Your task to perform on an android device: Show me popular videos on Youtube Image 0: 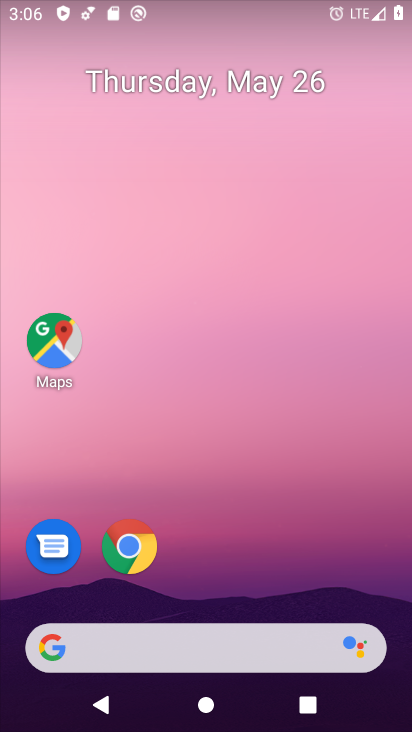
Step 0: drag from (244, 604) to (257, 46)
Your task to perform on an android device: Show me popular videos on Youtube Image 1: 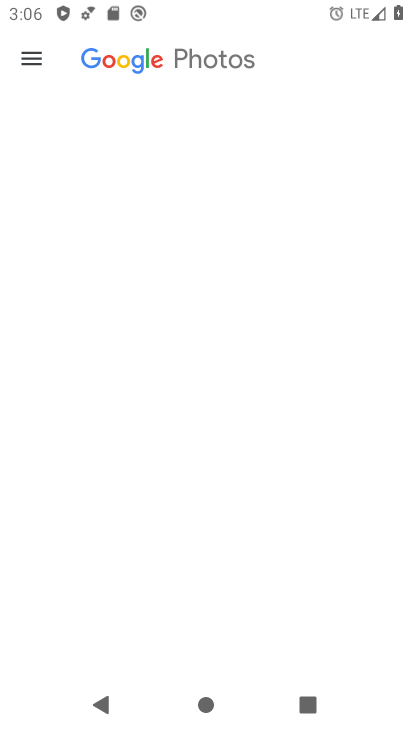
Step 1: click (358, 641)
Your task to perform on an android device: Show me popular videos on Youtube Image 2: 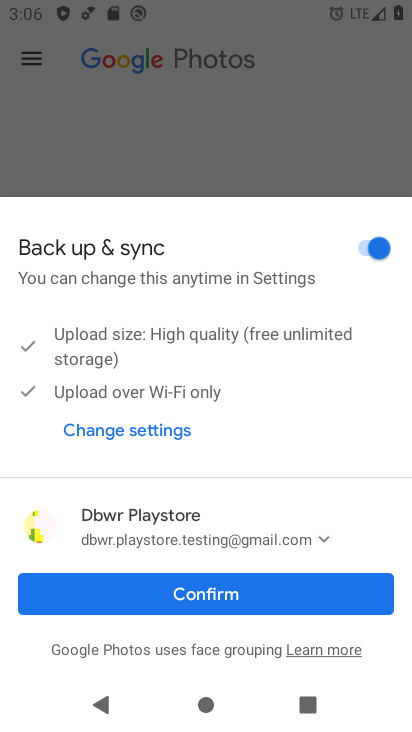
Step 2: press back button
Your task to perform on an android device: Show me popular videos on Youtube Image 3: 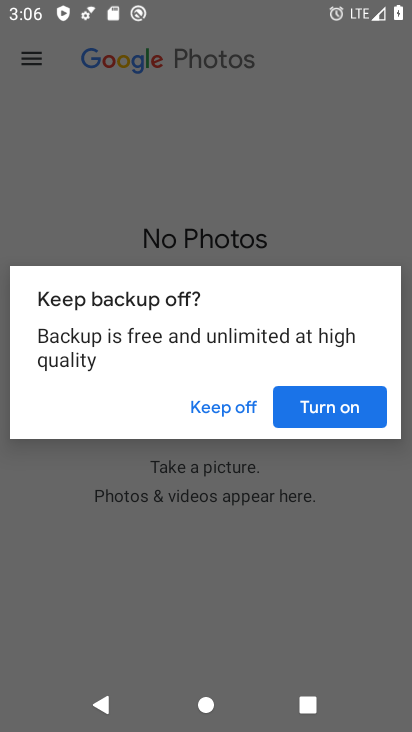
Step 3: press home button
Your task to perform on an android device: Show me popular videos on Youtube Image 4: 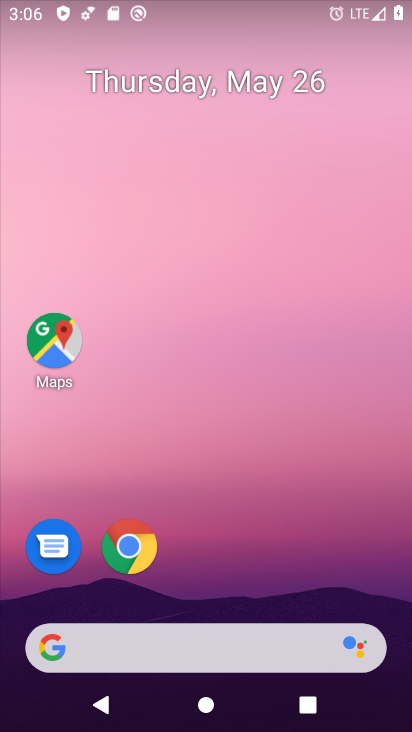
Step 4: drag from (233, 607) to (295, 59)
Your task to perform on an android device: Show me popular videos on Youtube Image 5: 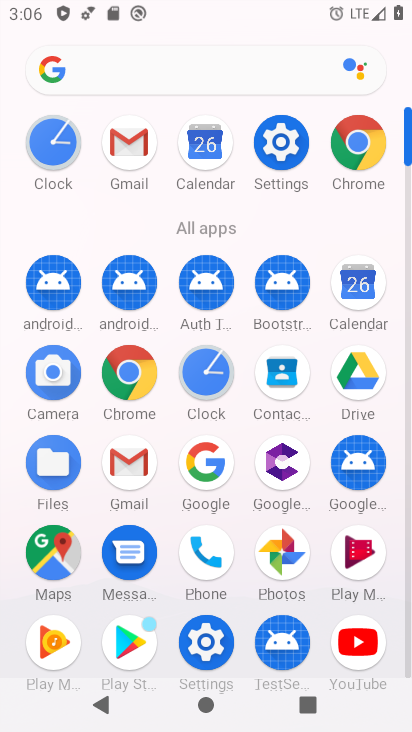
Step 5: click (358, 661)
Your task to perform on an android device: Show me popular videos on Youtube Image 6: 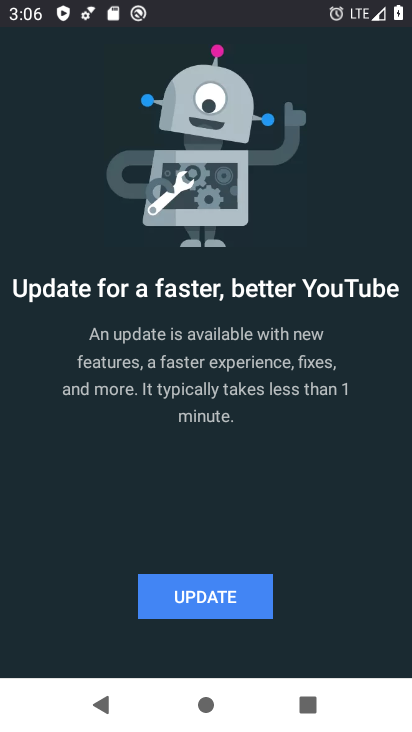
Step 6: click (224, 601)
Your task to perform on an android device: Show me popular videos on Youtube Image 7: 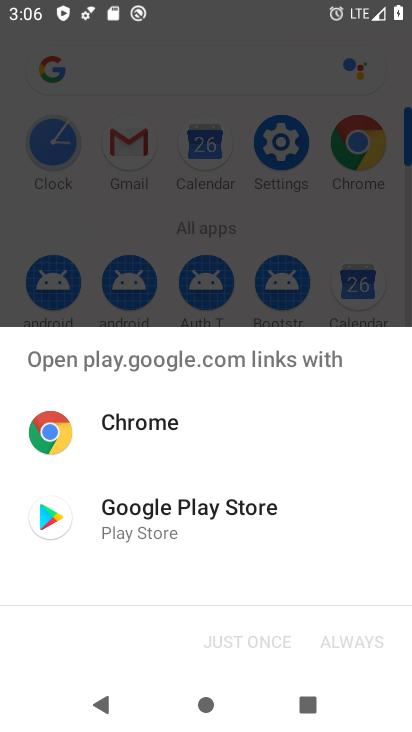
Step 7: click (193, 538)
Your task to perform on an android device: Show me popular videos on Youtube Image 8: 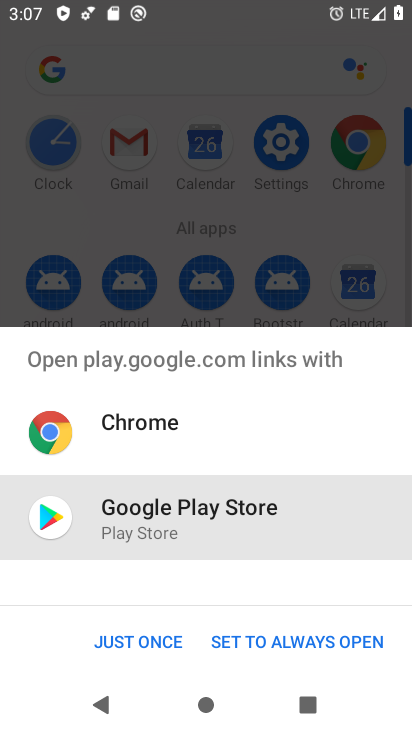
Step 8: click (140, 634)
Your task to perform on an android device: Show me popular videos on Youtube Image 9: 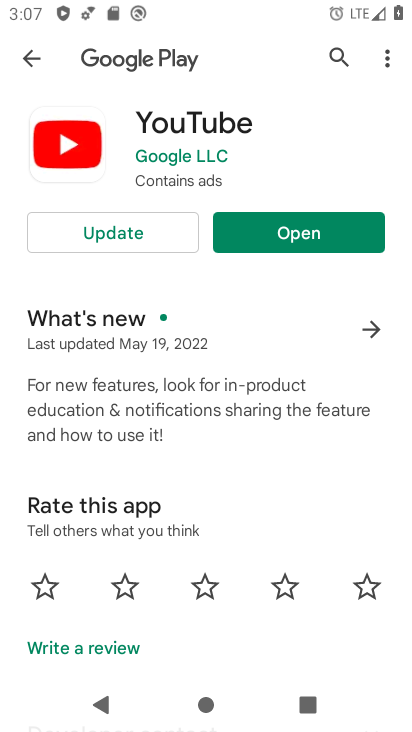
Step 9: click (146, 231)
Your task to perform on an android device: Show me popular videos on Youtube Image 10: 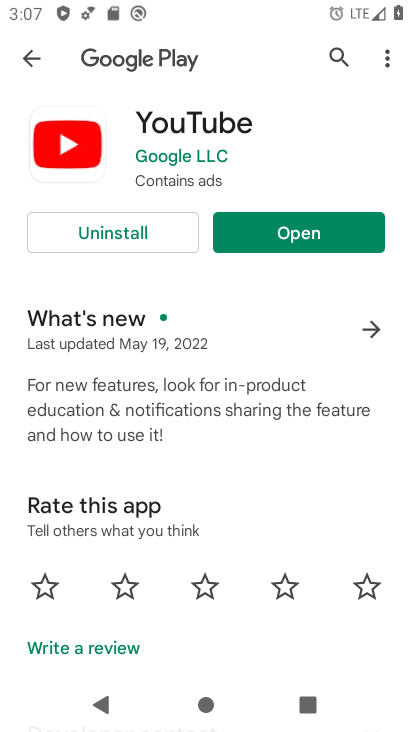
Step 10: click (285, 232)
Your task to perform on an android device: Show me popular videos on Youtube Image 11: 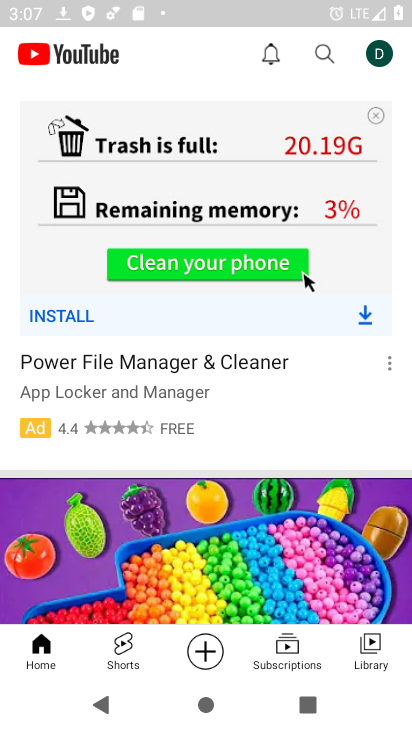
Step 11: click (320, 51)
Your task to perform on an android device: Show me popular videos on Youtube Image 12: 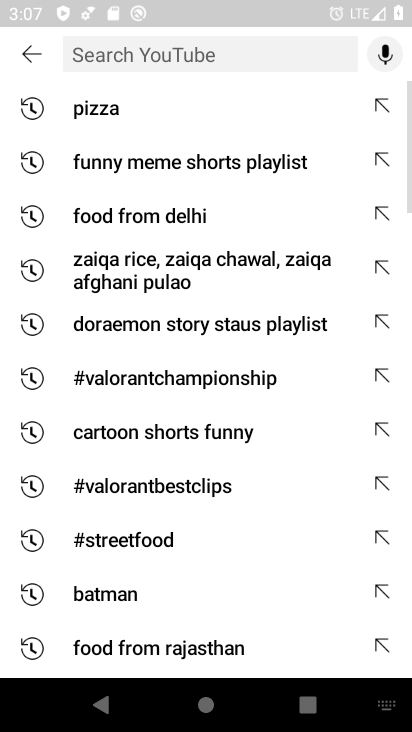
Step 12: click (24, 48)
Your task to perform on an android device: Show me popular videos on Youtube Image 13: 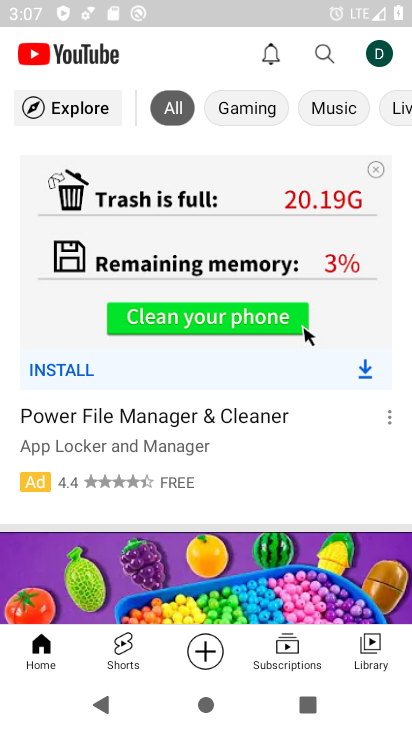
Step 13: click (81, 104)
Your task to perform on an android device: Show me popular videos on Youtube Image 14: 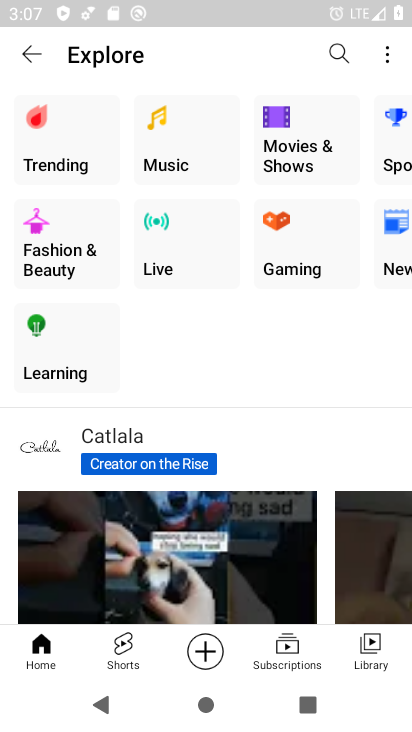
Step 14: click (60, 149)
Your task to perform on an android device: Show me popular videos on Youtube Image 15: 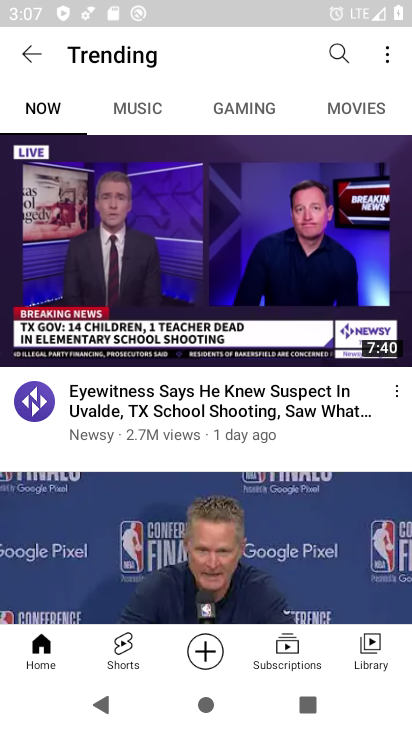
Step 15: task complete